Your task to perform on an android device: Open Yahoo.com Image 0: 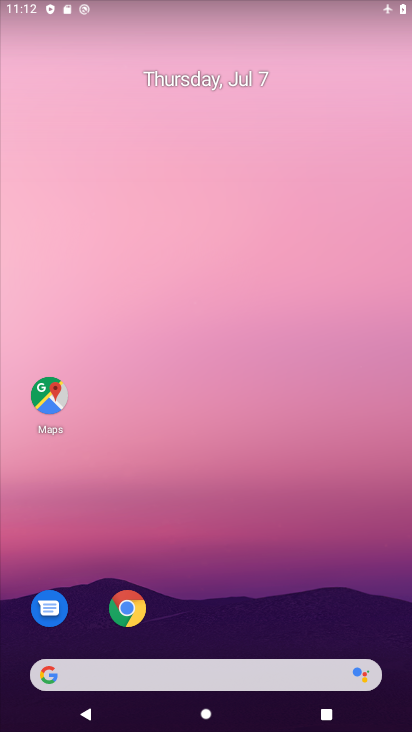
Step 0: click (135, 609)
Your task to perform on an android device: Open Yahoo.com Image 1: 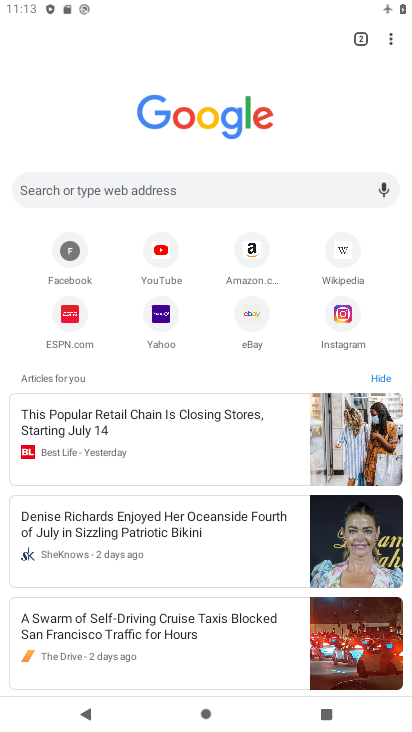
Step 1: click (163, 320)
Your task to perform on an android device: Open Yahoo.com Image 2: 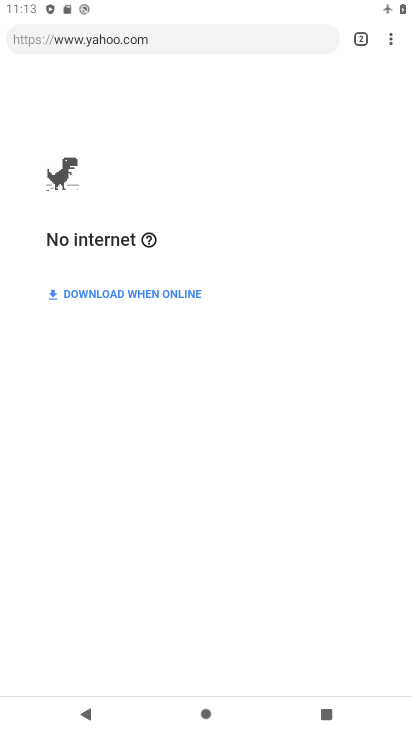
Step 2: task complete